Your task to perform on an android device: create a new album in the google photos Image 0: 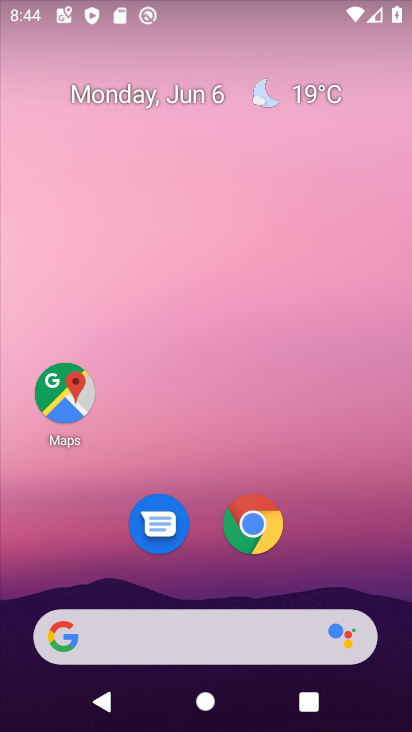
Step 0: drag from (187, 406) to (219, 0)
Your task to perform on an android device: create a new album in the google photos Image 1: 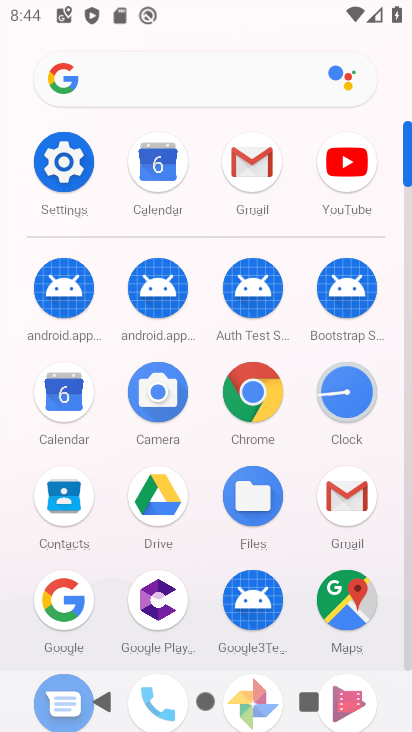
Step 1: drag from (295, 492) to (329, 182)
Your task to perform on an android device: create a new album in the google photos Image 2: 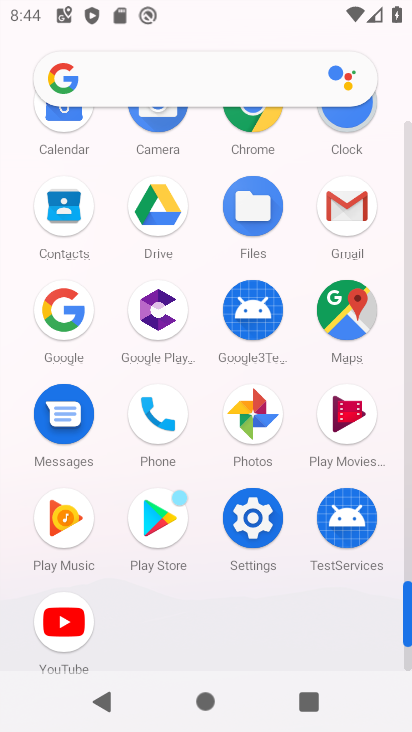
Step 2: click (263, 414)
Your task to perform on an android device: create a new album in the google photos Image 3: 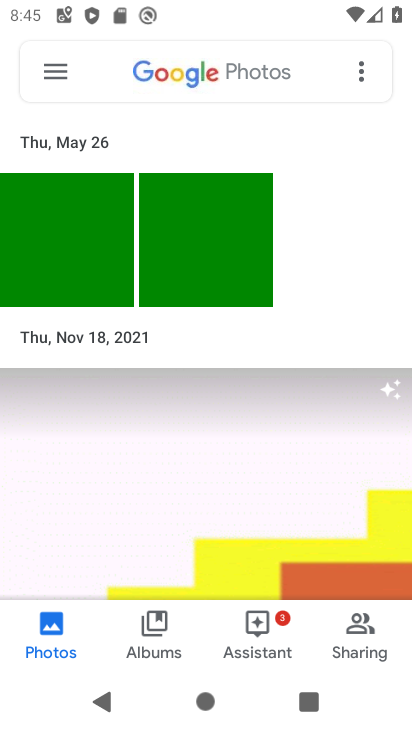
Step 3: click (146, 632)
Your task to perform on an android device: create a new album in the google photos Image 4: 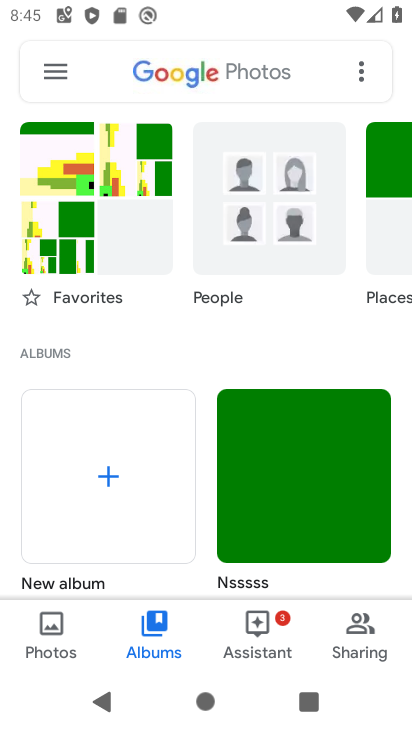
Step 4: click (110, 474)
Your task to perform on an android device: create a new album in the google photos Image 5: 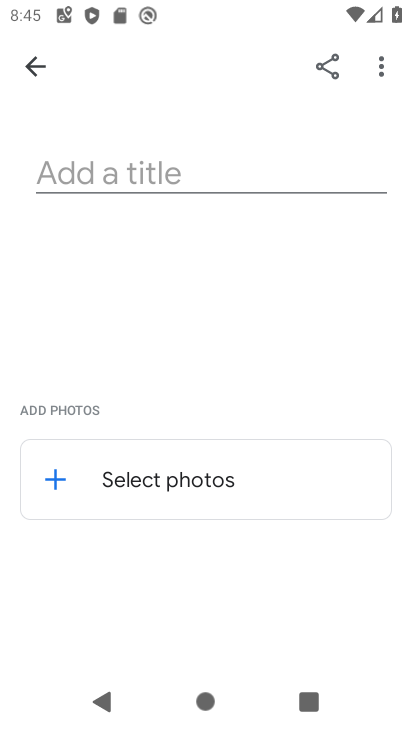
Step 5: click (154, 167)
Your task to perform on an android device: create a new album in the google photos Image 6: 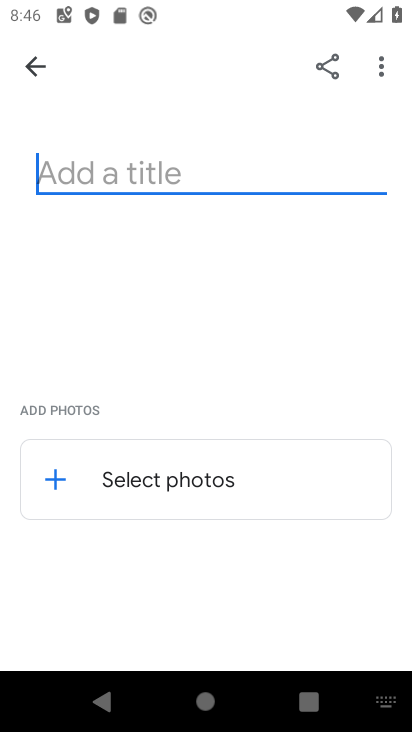
Step 6: type "Sanatan Dharm"
Your task to perform on an android device: create a new album in the google photos Image 7: 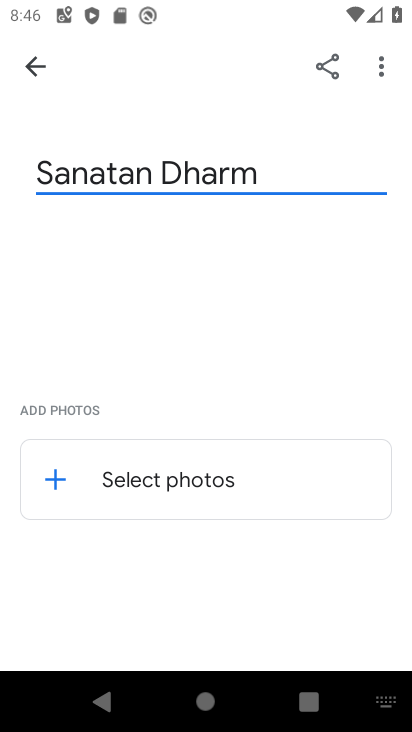
Step 7: click (55, 469)
Your task to perform on an android device: create a new album in the google photos Image 8: 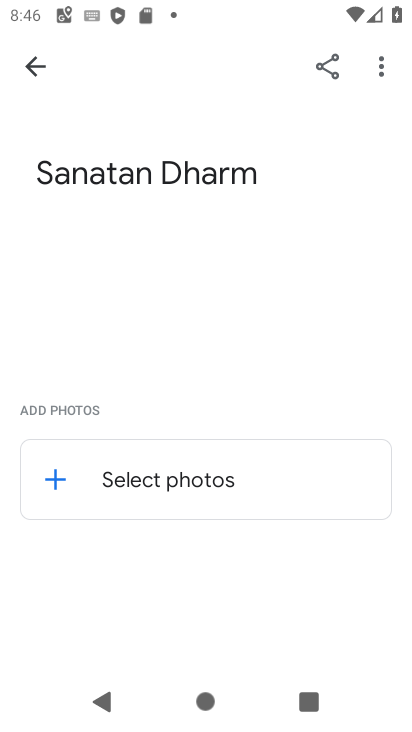
Step 8: click (55, 467)
Your task to perform on an android device: create a new album in the google photos Image 9: 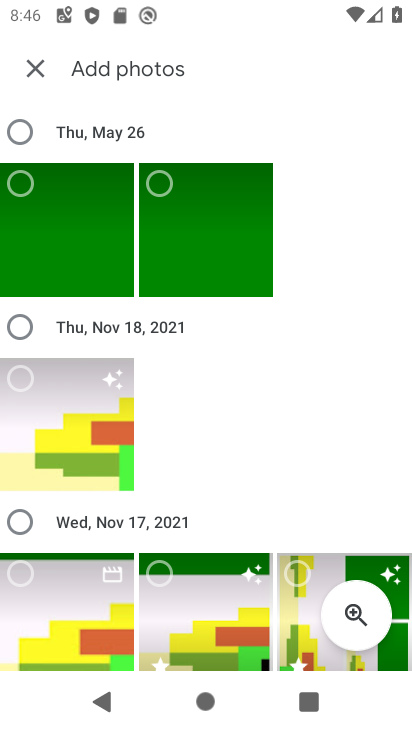
Step 9: click (19, 570)
Your task to perform on an android device: create a new album in the google photos Image 10: 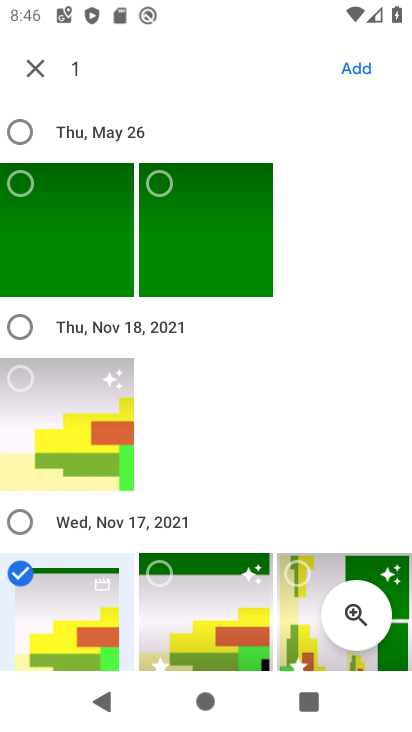
Step 10: click (15, 516)
Your task to perform on an android device: create a new album in the google photos Image 11: 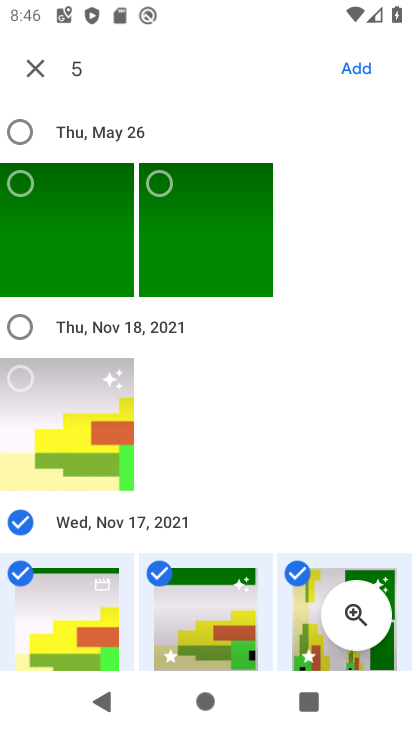
Step 11: task complete